Your task to perform on an android device: Search for Mexican restaurants on Maps Image 0: 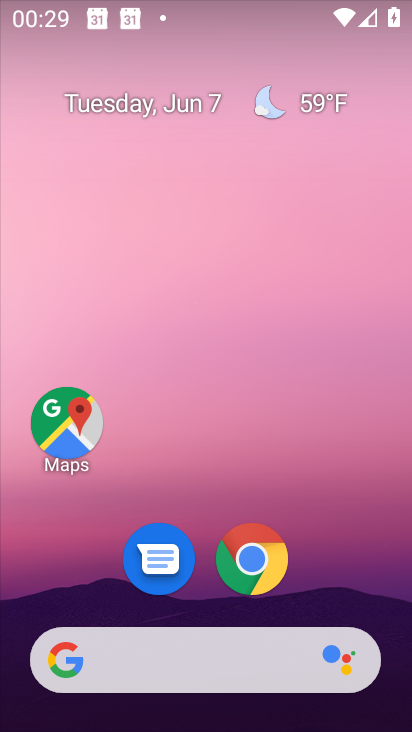
Step 0: click (66, 414)
Your task to perform on an android device: Search for Mexican restaurants on Maps Image 1: 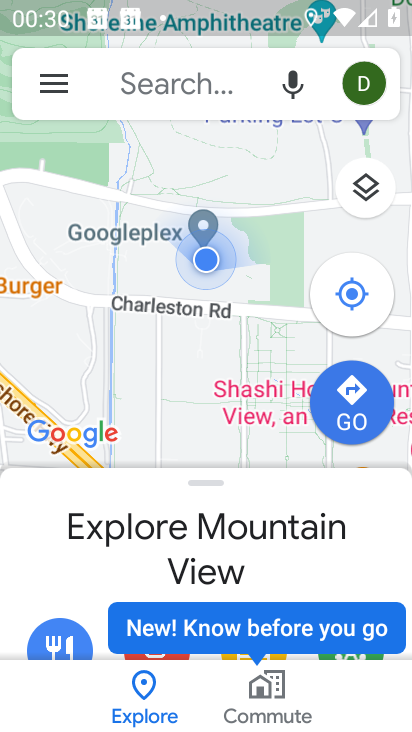
Step 1: click (42, 81)
Your task to perform on an android device: Search for Mexican restaurants on Maps Image 2: 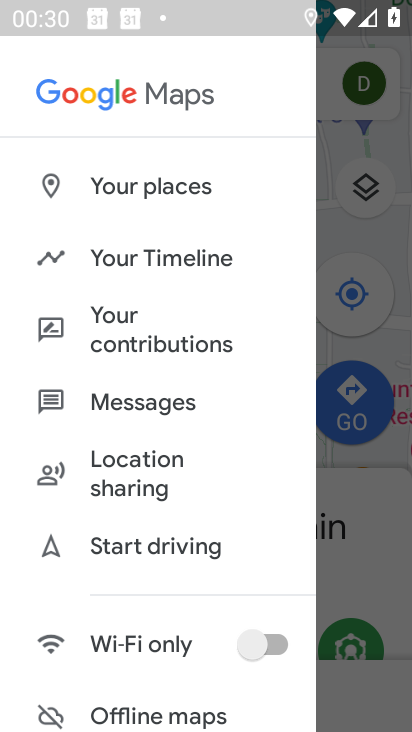
Step 2: press back button
Your task to perform on an android device: Search for Mexican restaurants on Maps Image 3: 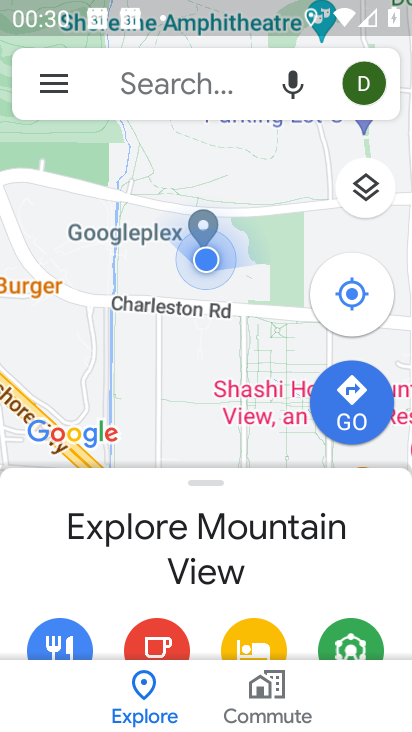
Step 3: click (189, 75)
Your task to perform on an android device: Search for Mexican restaurants on Maps Image 4: 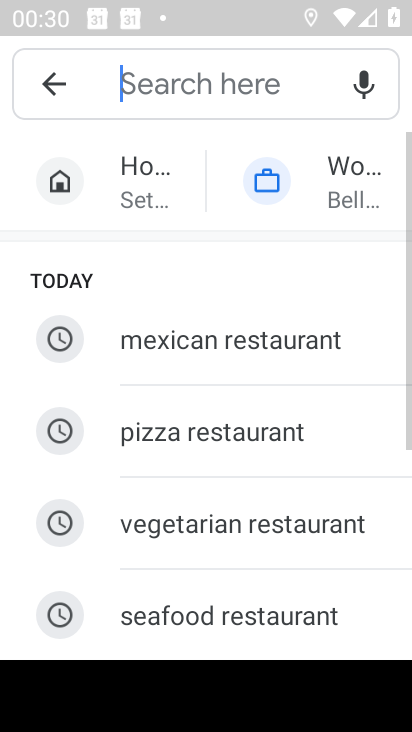
Step 4: click (245, 349)
Your task to perform on an android device: Search for Mexican restaurants on Maps Image 5: 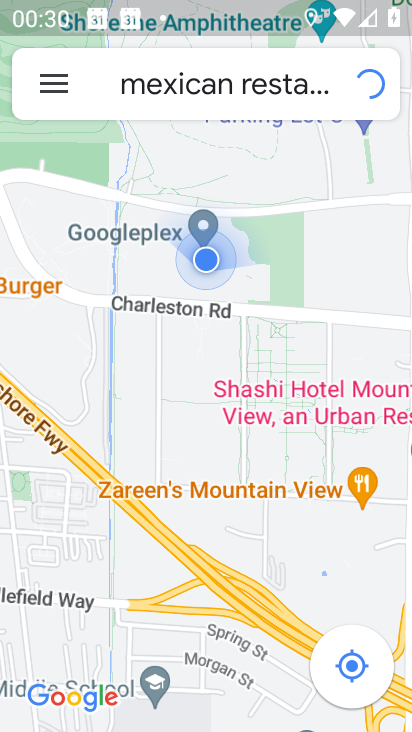
Step 5: click (245, 349)
Your task to perform on an android device: Search for Mexican restaurants on Maps Image 6: 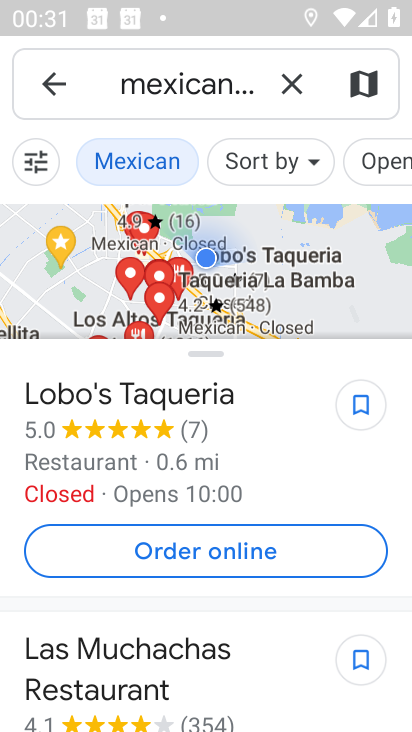
Step 6: task complete